Your task to perform on an android device: snooze an email in the gmail app Image 0: 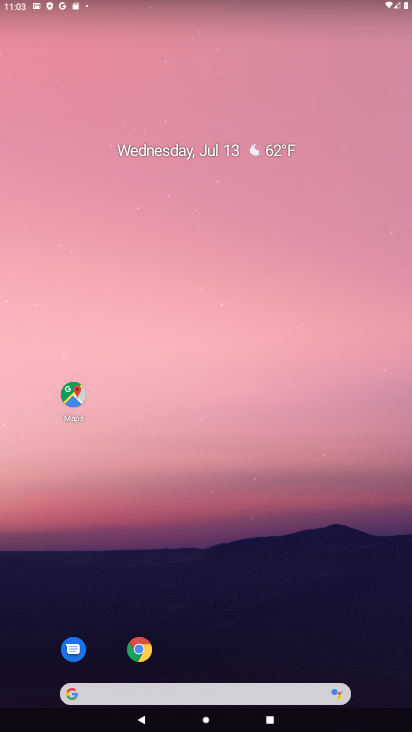
Step 0: drag from (369, 670) to (217, 56)
Your task to perform on an android device: snooze an email in the gmail app Image 1: 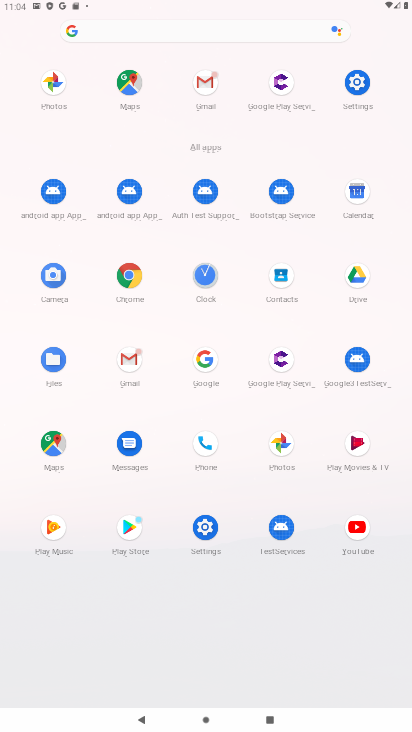
Step 1: click (138, 361)
Your task to perform on an android device: snooze an email in the gmail app Image 2: 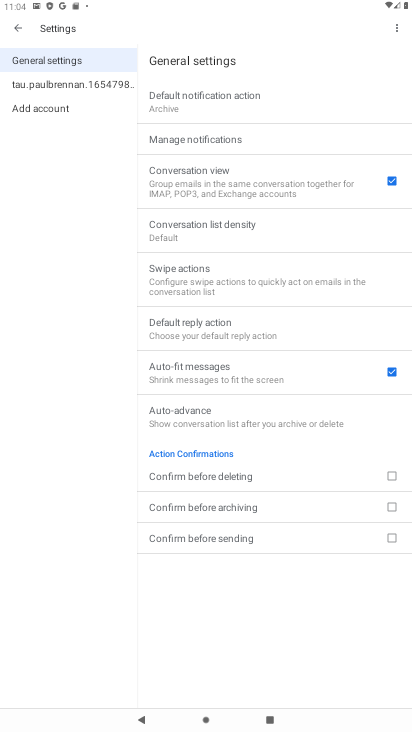
Step 2: press back button
Your task to perform on an android device: snooze an email in the gmail app Image 3: 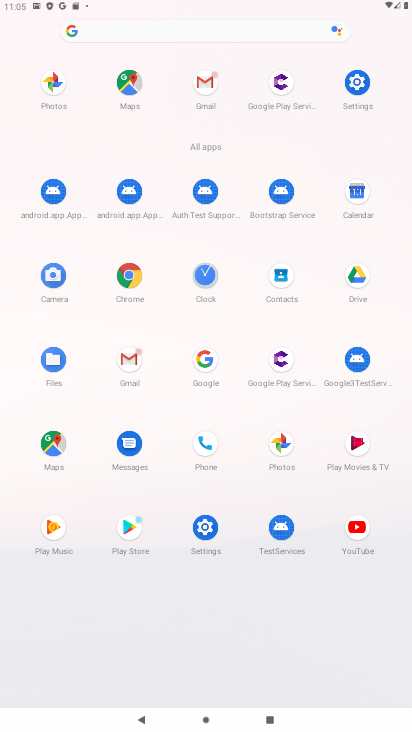
Step 3: click (119, 366)
Your task to perform on an android device: snooze an email in the gmail app Image 4: 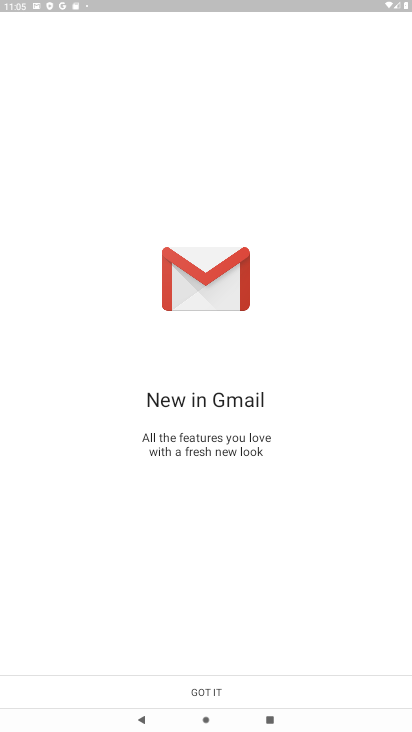
Step 4: click (184, 687)
Your task to perform on an android device: snooze an email in the gmail app Image 5: 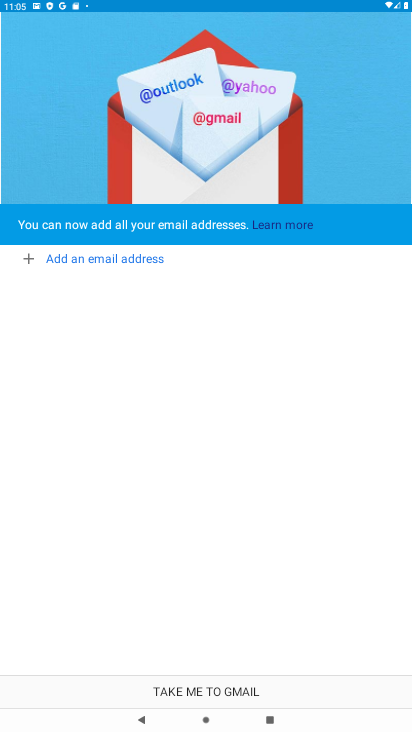
Step 5: click (184, 687)
Your task to perform on an android device: snooze an email in the gmail app Image 6: 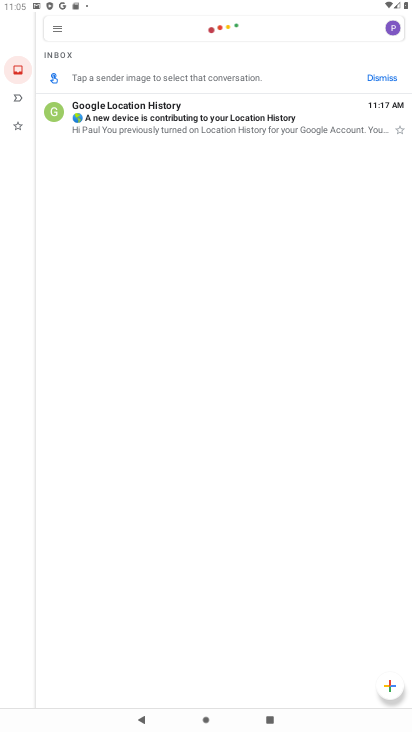
Step 6: click (279, 127)
Your task to perform on an android device: snooze an email in the gmail app Image 7: 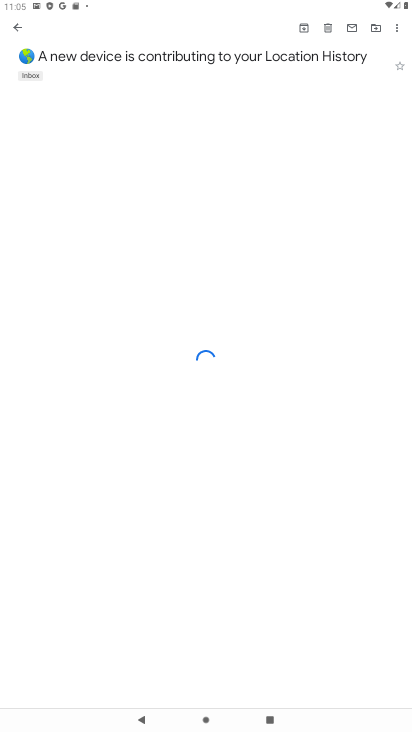
Step 7: click (395, 28)
Your task to perform on an android device: snooze an email in the gmail app Image 8: 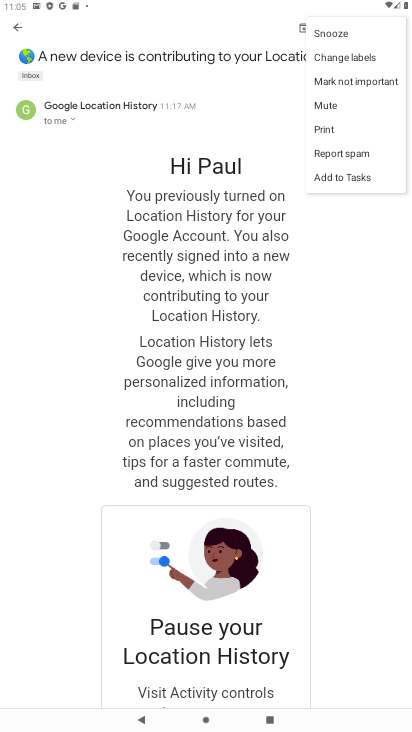
Step 8: click (346, 32)
Your task to perform on an android device: snooze an email in the gmail app Image 9: 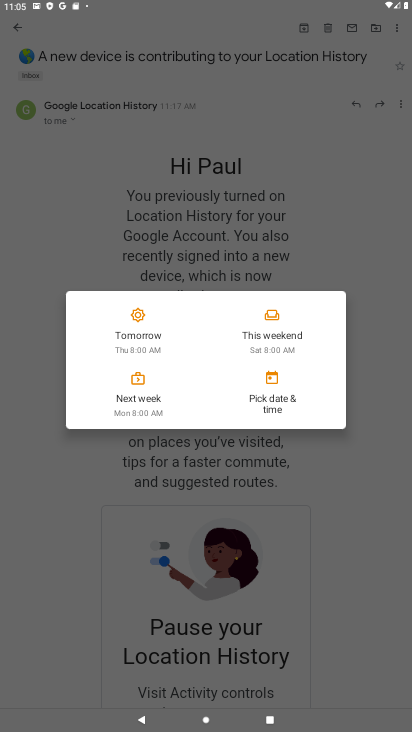
Step 9: click (267, 326)
Your task to perform on an android device: snooze an email in the gmail app Image 10: 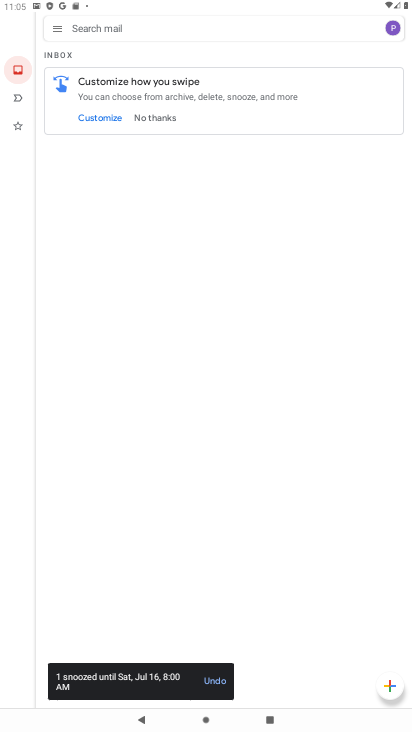
Step 10: task complete